Your task to perform on an android device: change the clock display to show seconds Image 0: 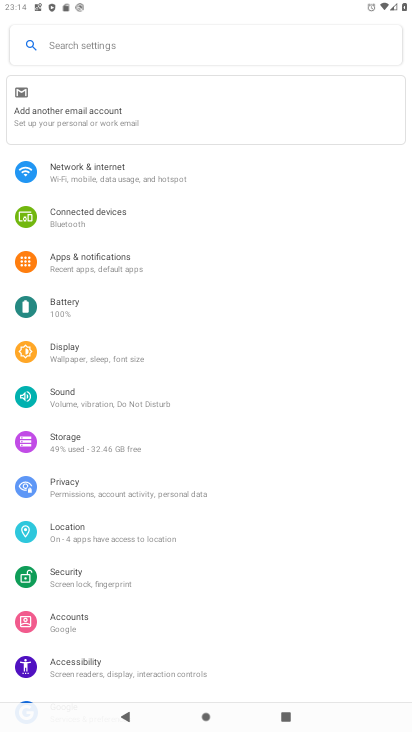
Step 0: press home button
Your task to perform on an android device: change the clock display to show seconds Image 1: 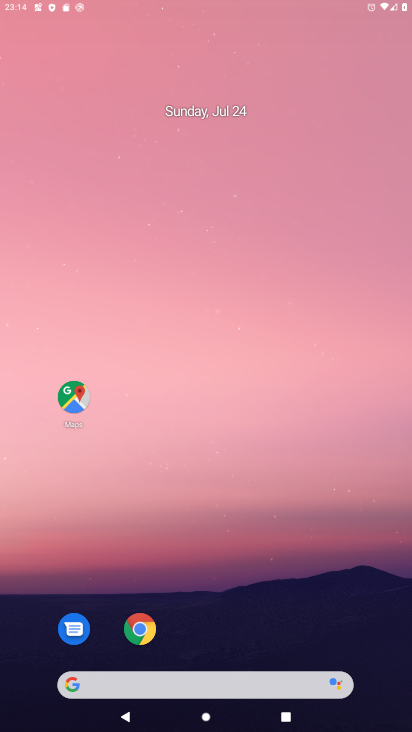
Step 1: drag from (181, 622) to (274, 25)
Your task to perform on an android device: change the clock display to show seconds Image 2: 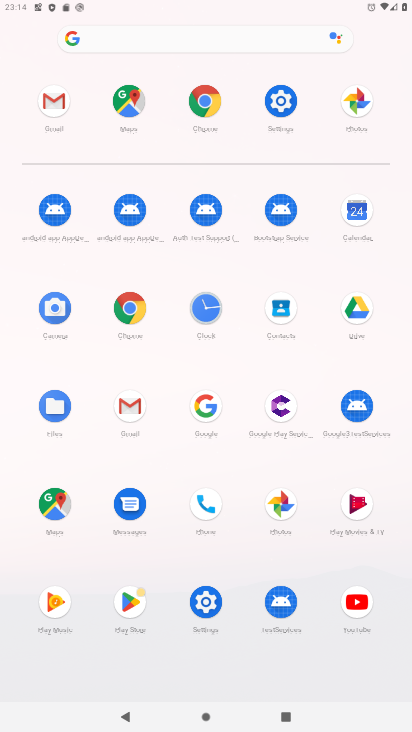
Step 2: click (209, 307)
Your task to perform on an android device: change the clock display to show seconds Image 3: 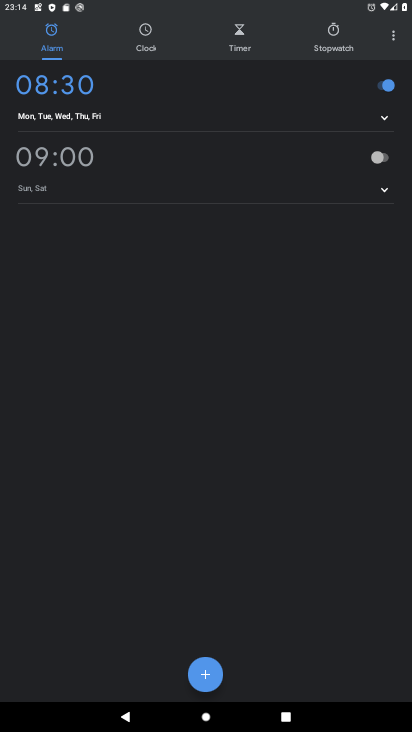
Step 3: drag from (392, 34) to (356, 70)
Your task to perform on an android device: change the clock display to show seconds Image 4: 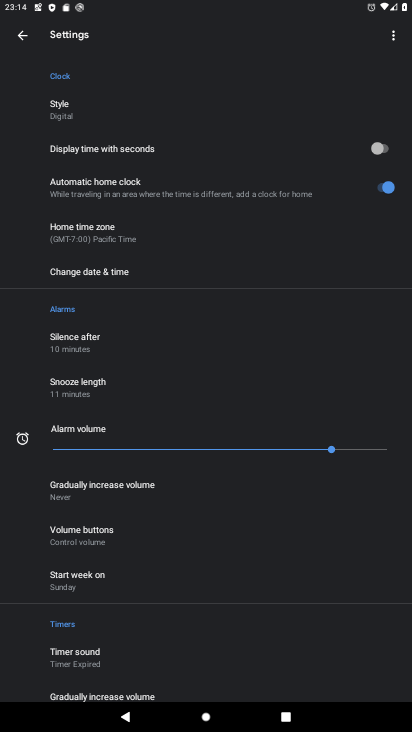
Step 4: click (370, 143)
Your task to perform on an android device: change the clock display to show seconds Image 5: 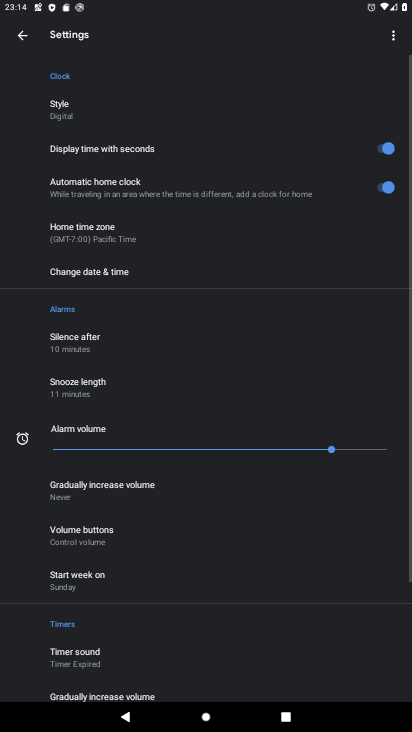
Step 5: task complete